Your task to perform on an android device: Open the map Image 0: 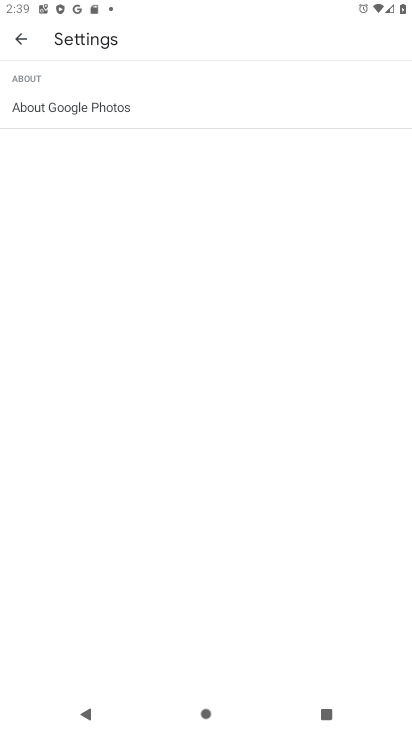
Step 0: press home button
Your task to perform on an android device: Open the map Image 1: 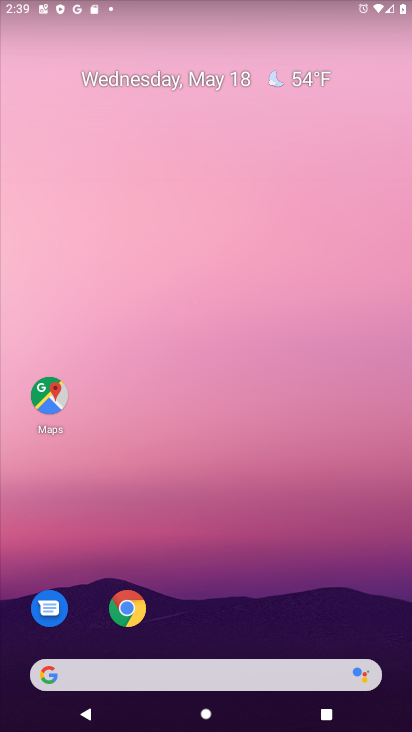
Step 1: click (47, 407)
Your task to perform on an android device: Open the map Image 2: 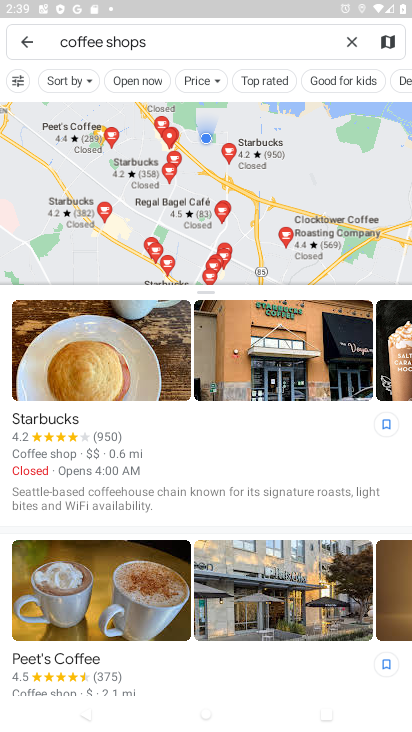
Step 2: task complete